Your task to perform on an android device: Search for Italian restaurants on Maps Image 0: 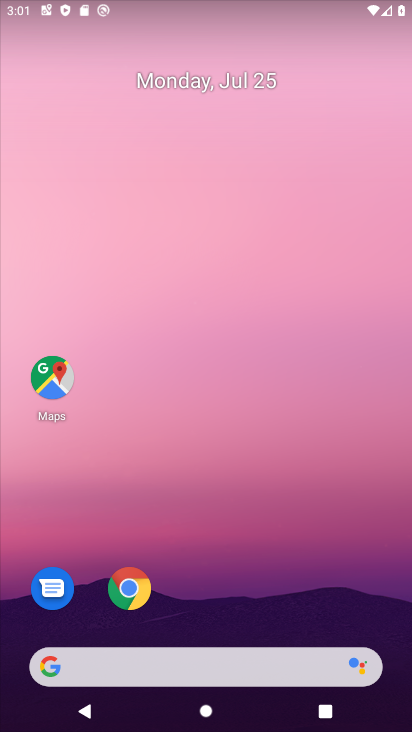
Step 0: drag from (261, 561) to (355, 0)
Your task to perform on an android device: Search for Italian restaurants on Maps Image 1: 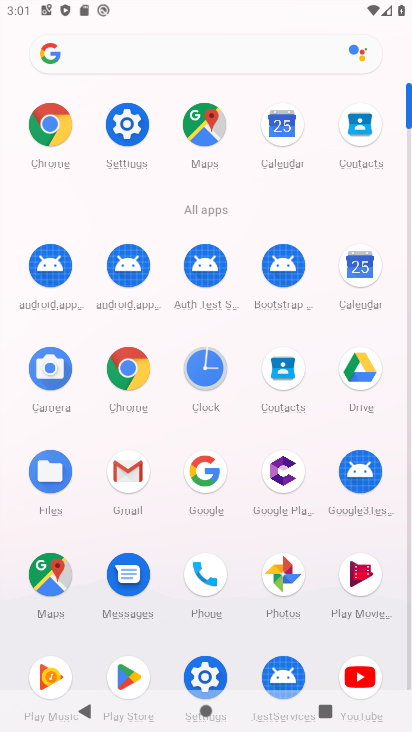
Step 1: click (41, 574)
Your task to perform on an android device: Search for Italian restaurants on Maps Image 2: 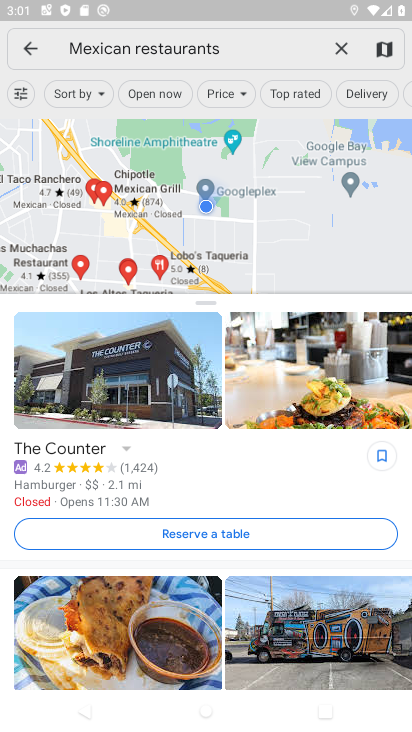
Step 2: click (276, 41)
Your task to perform on an android device: Search for Italian restaurants on Maps Image 3: 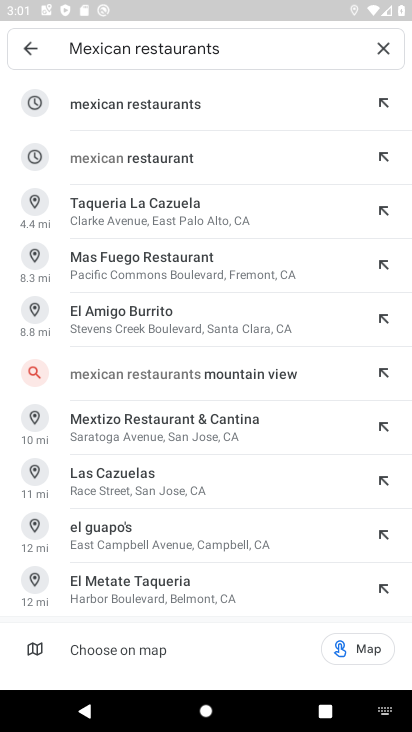
Step 3: click (382, 43)
Your task to perform on an android device: Search for Italian restaurants on Maps Image 4: 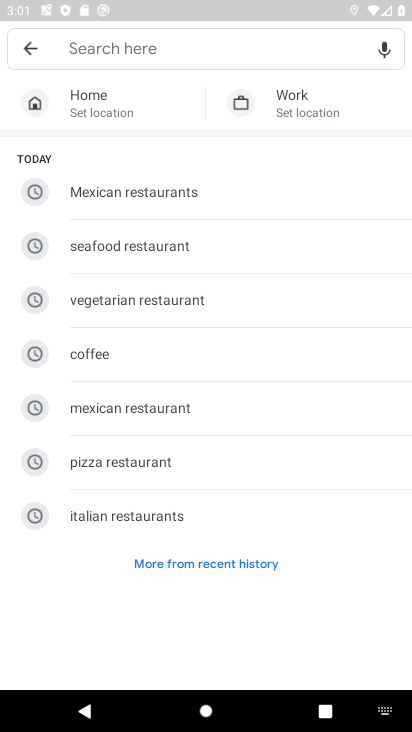
Step 4: type "Italian restaurants"
Your task to perform on an android device: Search for Italian restaurants on Maps Image 5: 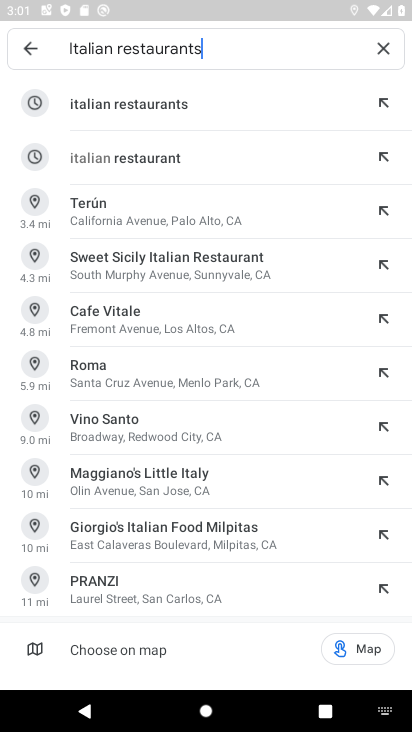
Step 5: click (110, 109)
Your task to perform on an android device: Search for Italian restaurants on Maps Image 6: 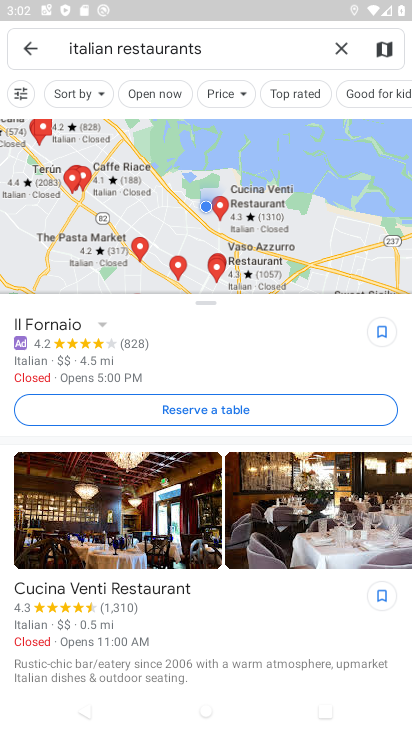
Step 6: task complete